Your task to perform on an android device: Search for razer blade on ebay, select the first entry, and add it to the cart. Image 0: 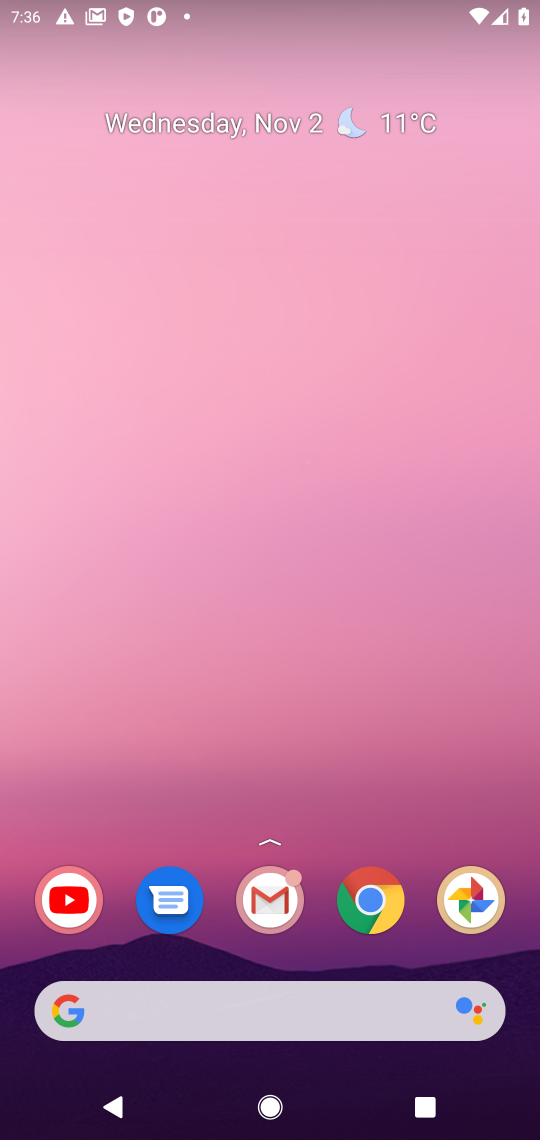
Step 0: click (273, 1015)
Your task to perform on an android device: Search for razer blade on ebay, select the first entry, and add it to the cart. Image 1: 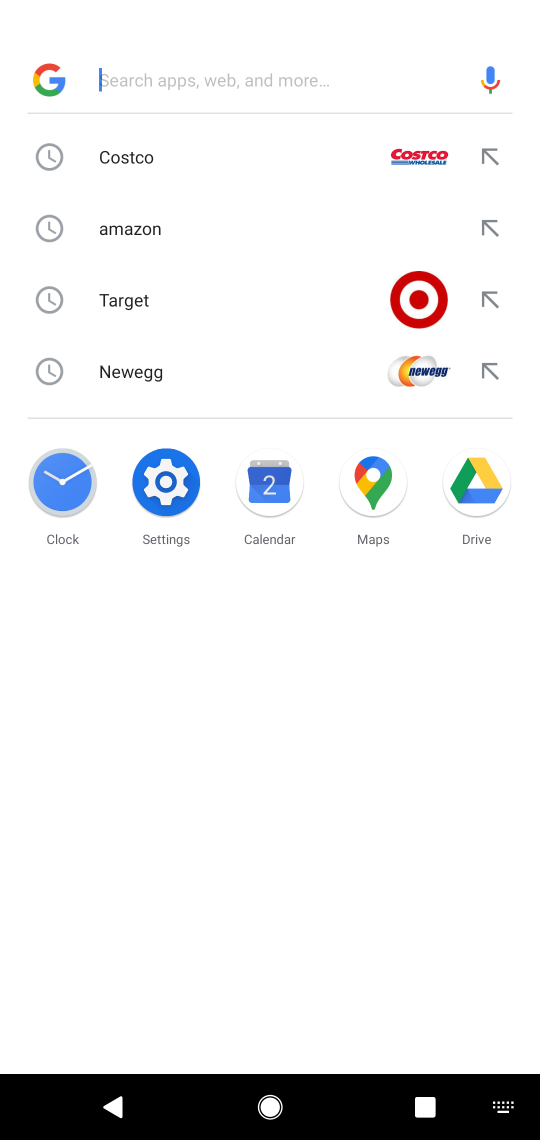
Step 1: type "ebay"
Your task to perform on an android device: Search for razer blade on ebay, select the first entry, and add it to the cart. Image 2: 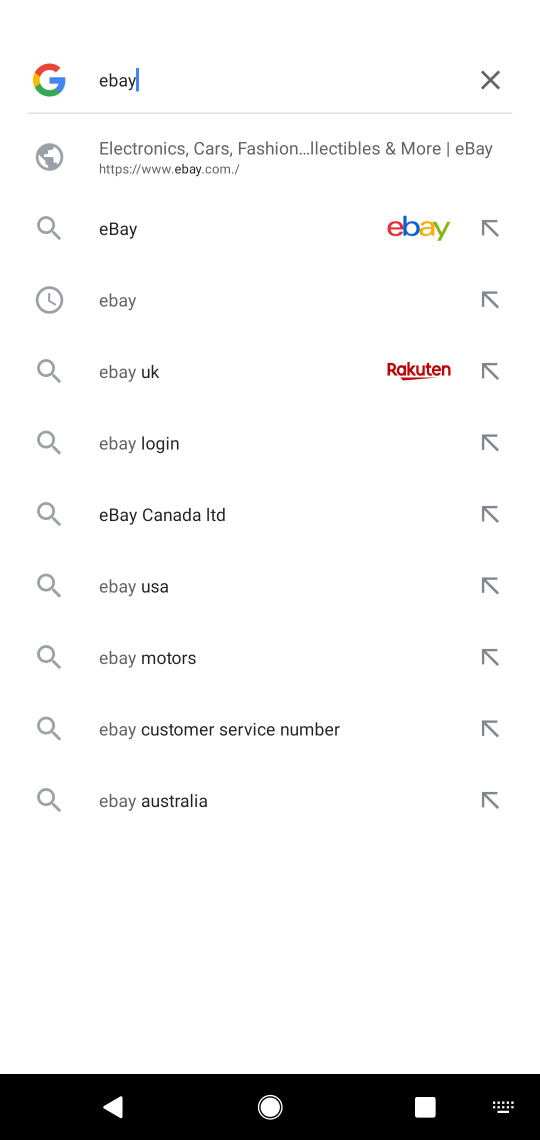
Step 2: click (131, 227)
Your task to perform on an android device: Search for razer blade on ebay, select the first entry, and add it to the cart. Image 3: 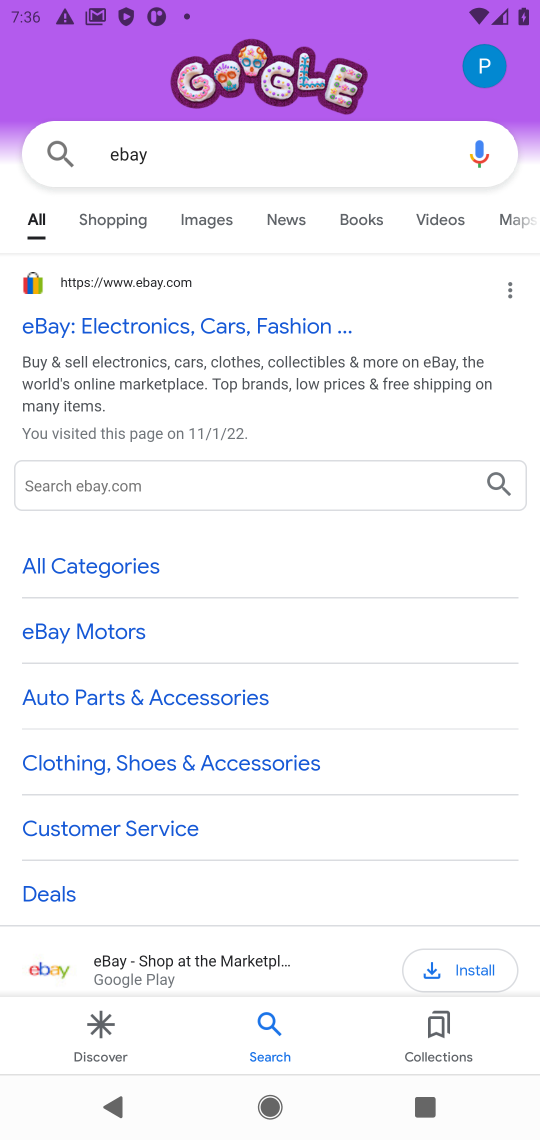
Step 3: click (162, 319)
Your task to perform on an android device: Search for razer blade on ebay, select the first entry, and add it to the cart. Image 4: 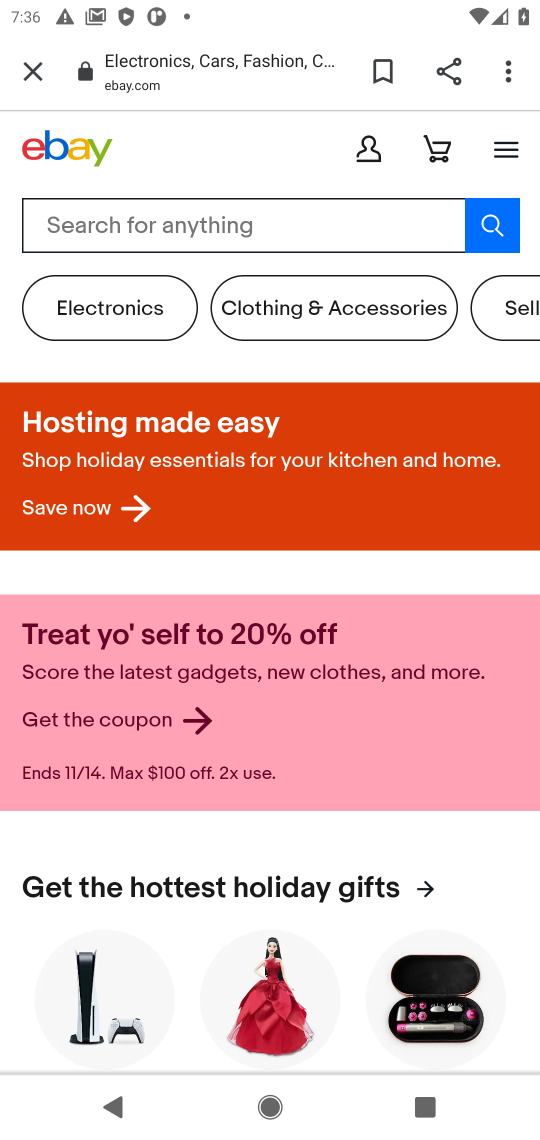
Step 4: click (206, 225)
Your task to perform on an android device: Search for razer blade on ebay, select the first entry, and add it to the cart. Image 5: 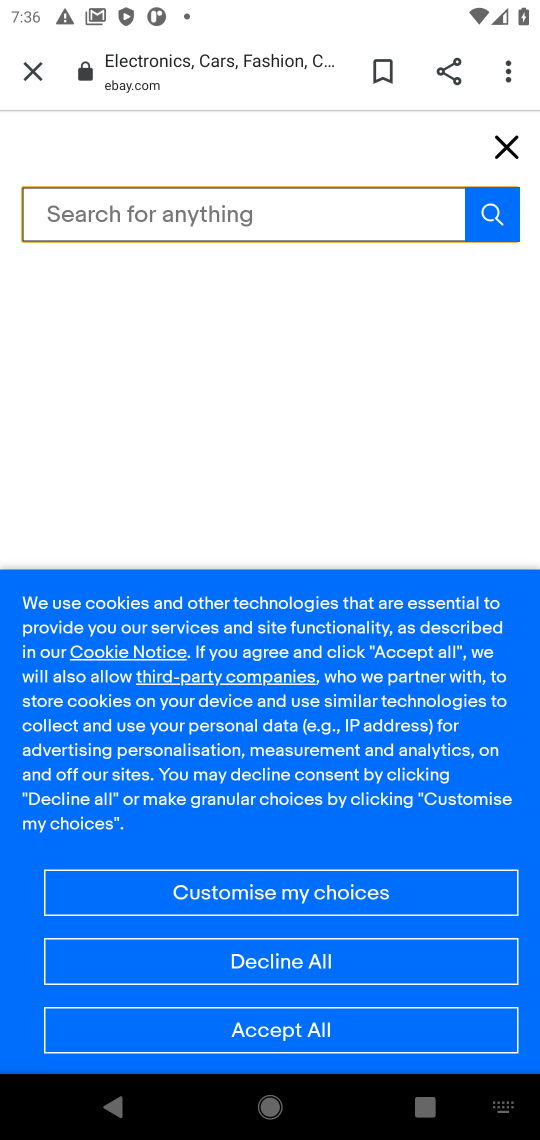
Step 5: click (275, 1033)
Your task to perform on an android device: Search for razer blade on ebay, select the first entry, and add it to the cart. Image 6: 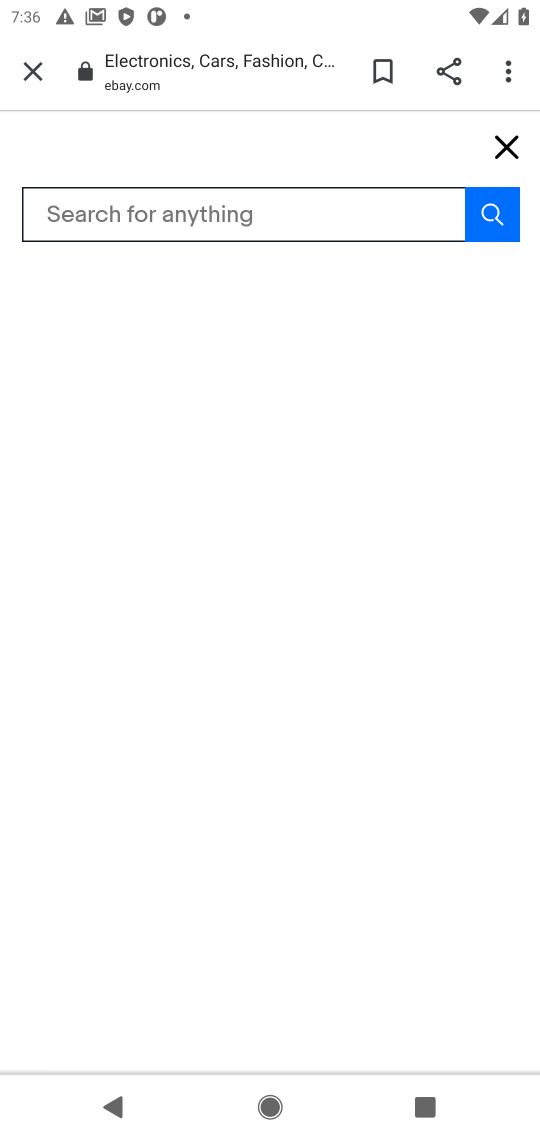
Step 6: click (144, 229)
Your task to perform on an android device: Search for razer blade on ebay, select the first entry, and add it to the cart. Image 7: 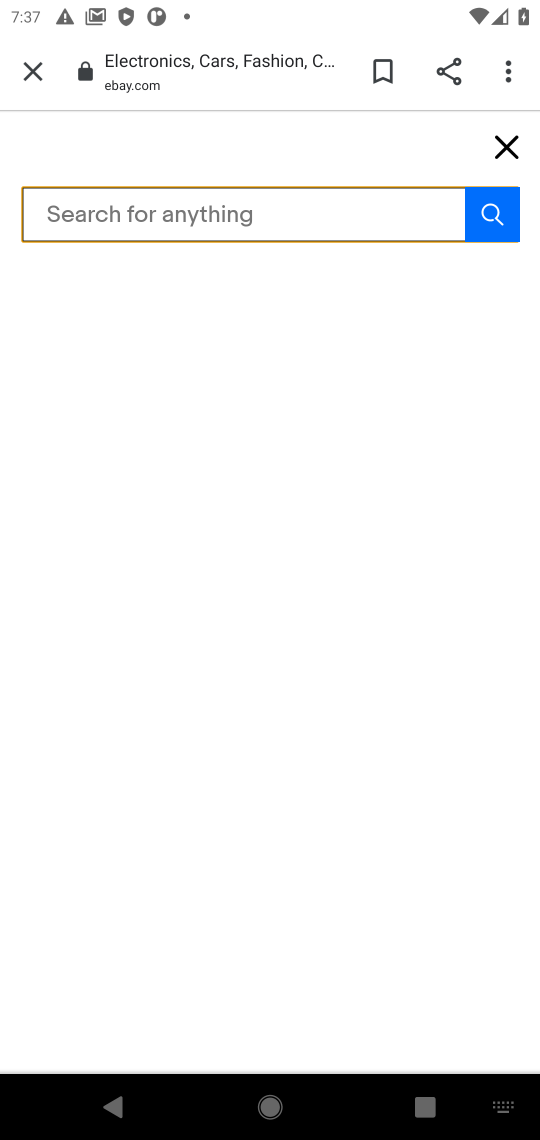
Step 7: type "razer blade"
Your task to perform on an android device: Search for razer blade on ebay, select the first entry, and add it to the cart. Image 8: 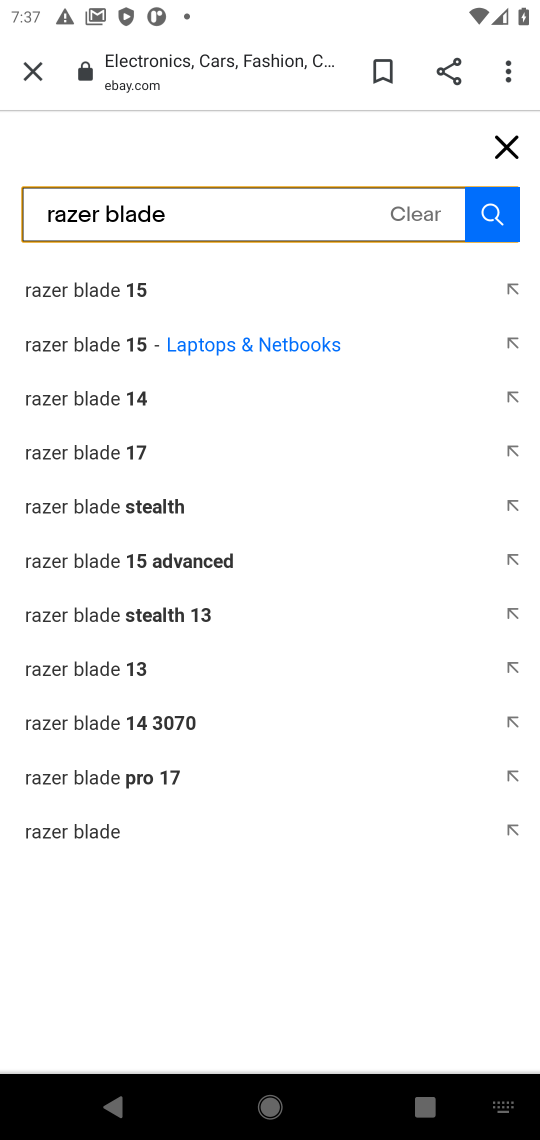
Step 8: click (488, 215)
Your task to perform on an android device: Search for razer blade on ebay, select the first entry, and add it to the cart. Image 9: 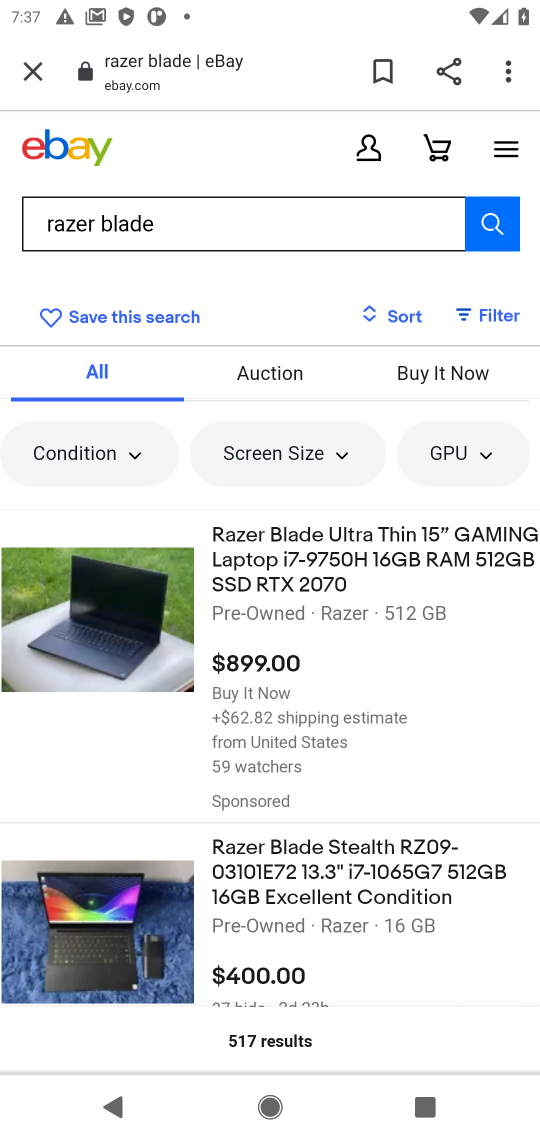
Step 9: click (345, 550)
Your task to perform on an android device: Search for razer blade on ebay, select the first entry, and add it to the cart. Image 10: 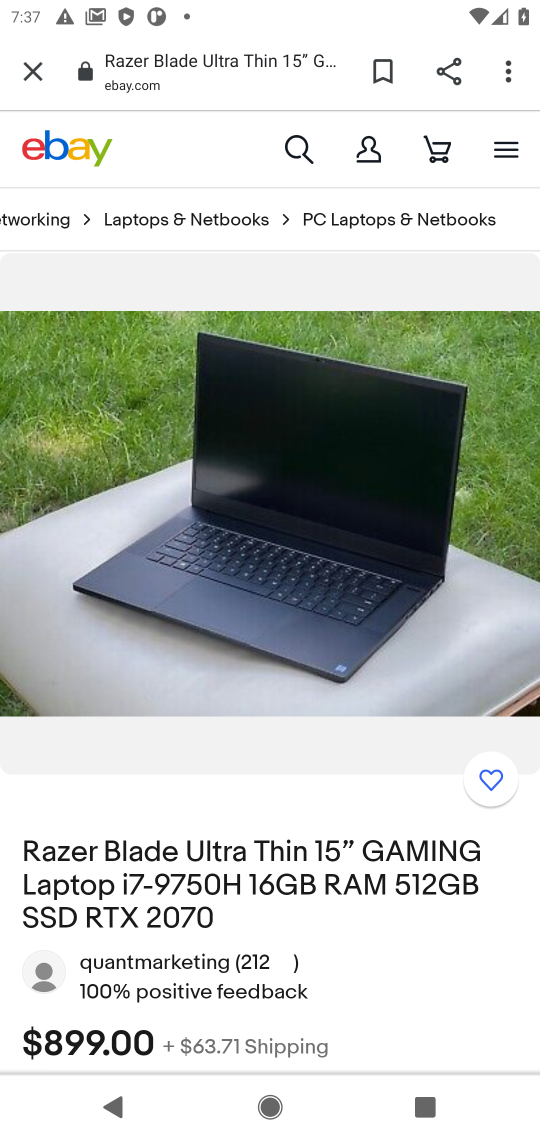
Step 10: drag from (387, 796) to (307, 444)
Your task to perform on an android device: Search for razer blade on ebay, select the first entry, and add it to the cart. Image 11: 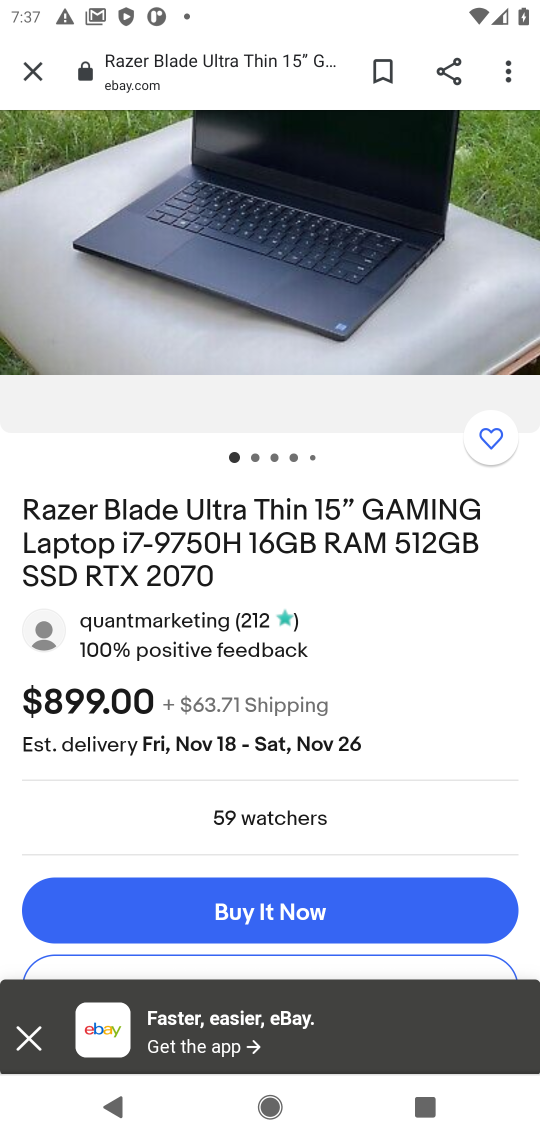
Step 11: drag from (403, 801) to (362, 570)
Your task to perform on an android device: Search for razer blade on ebay, select the first entry, and add it to the cart. Image 12: 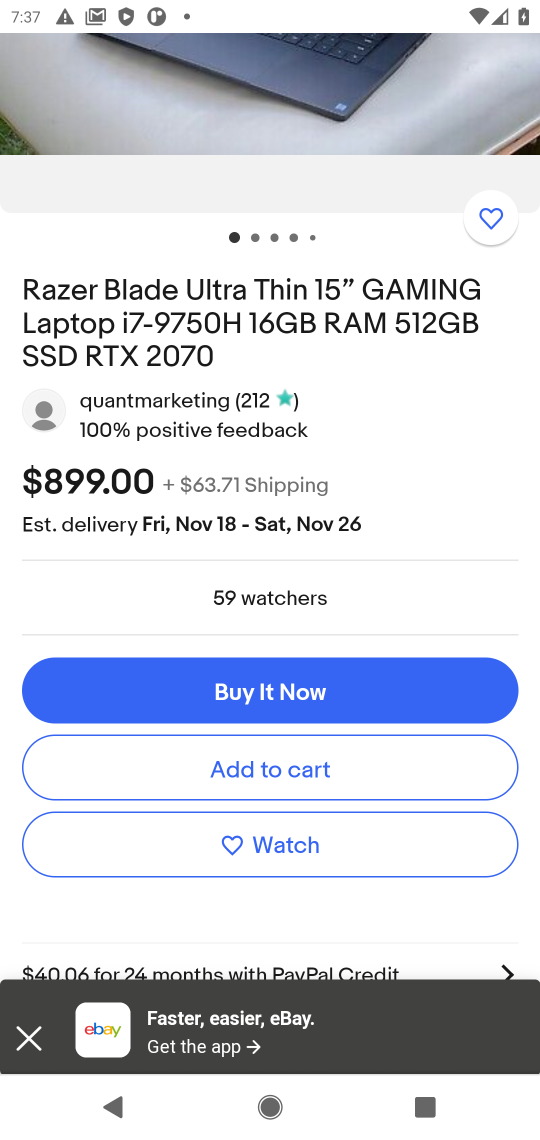
Step 12: click (304, 767)
Your task to perform on an android device: Search for razer blade on ebay, select the first entry, and add it to the cart. Image 13: 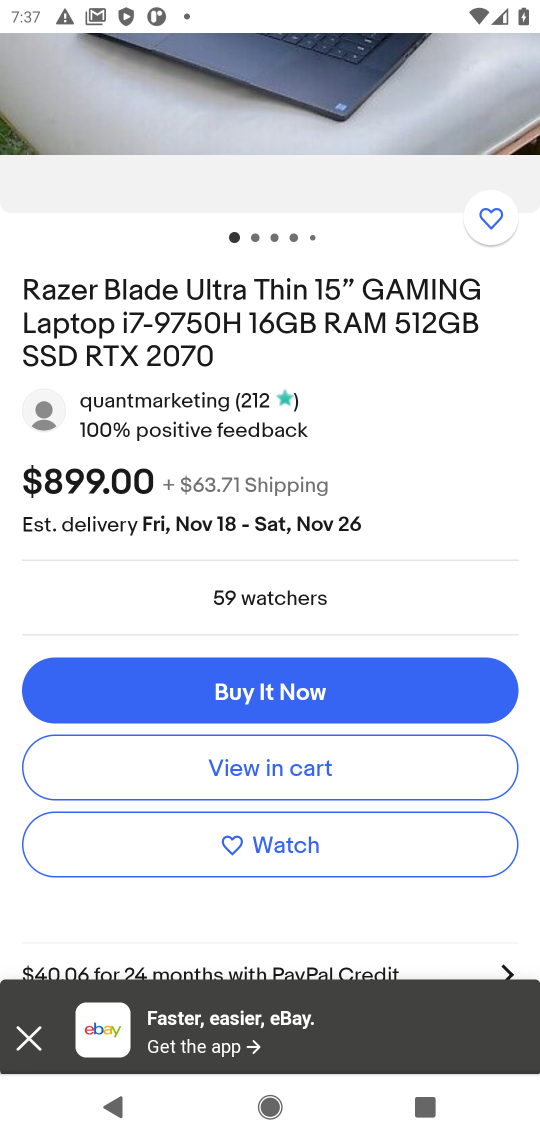
Step 13: task complete